Your task to perform on an android device: toggle sleep mode Image 0: 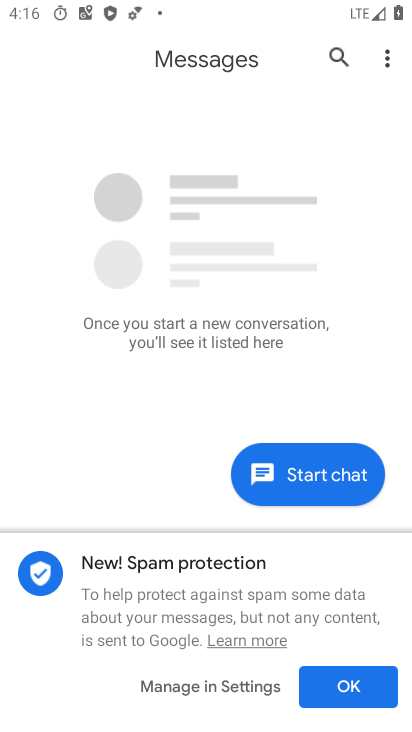
Step 0: press home button
Your task to perform on an android device: toggle sleep mode Image 1: 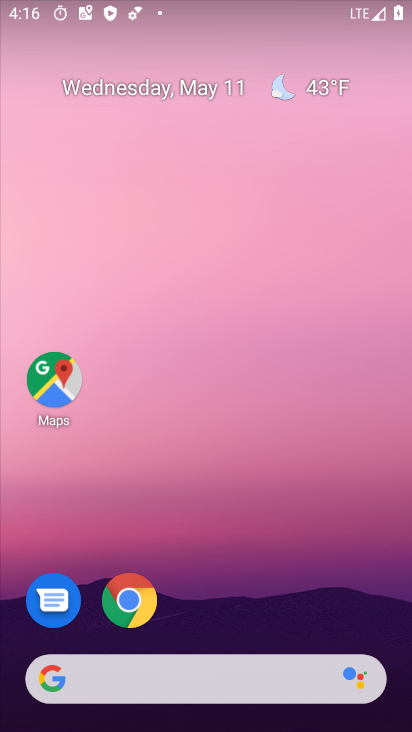
Step 1: drag from (281, 630) to (311, 38)
Your task to perform on an android device: toggle sleep mode Image 2: 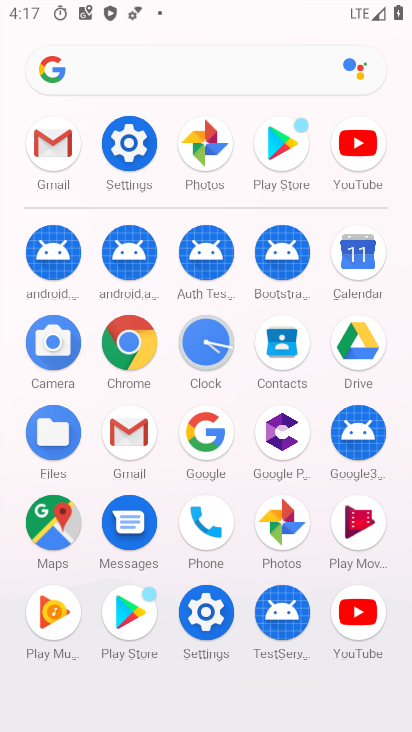
Step 2: click (129, 144)
Your task to perform on an android device: toggle sleep mode Image 3: 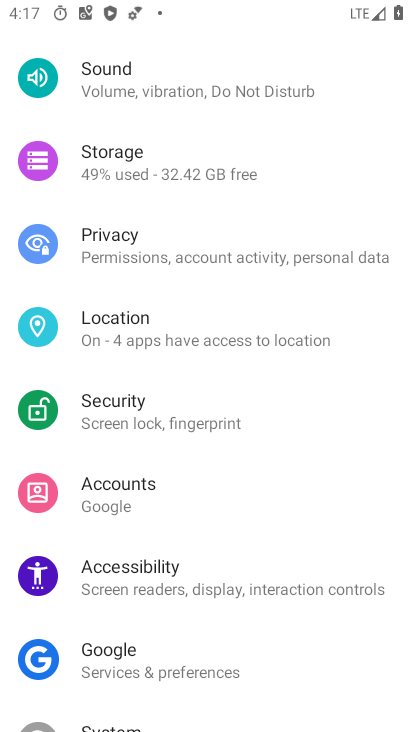
Step 3: drag from (229, 530) to (244, 252)
Your task to perform on an android device: toggle sleep mode Image 4: 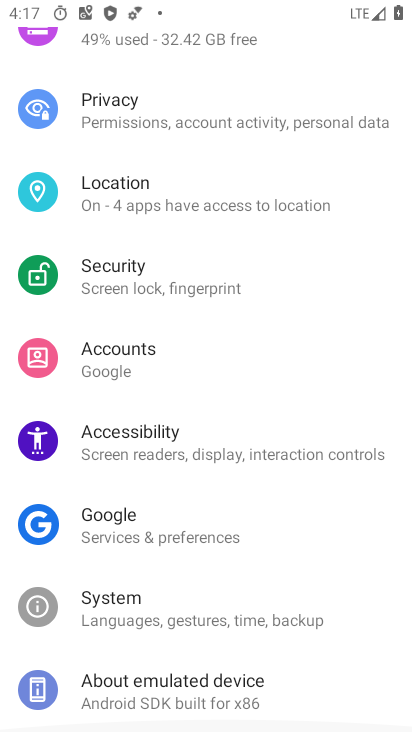
Step 4: drag from (244, 252) to (252, 705)
Your task to perform on an android device: toggle sleep mode Image 5: 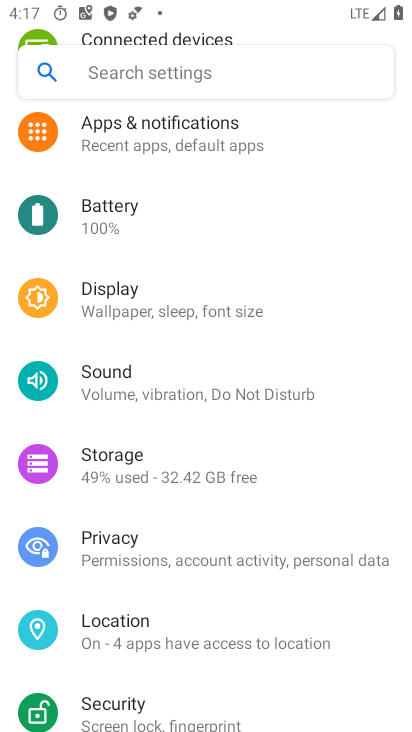
Step 5: click (121, 319)
Your task to perform on an android device: toggle sleep mode Image 6: 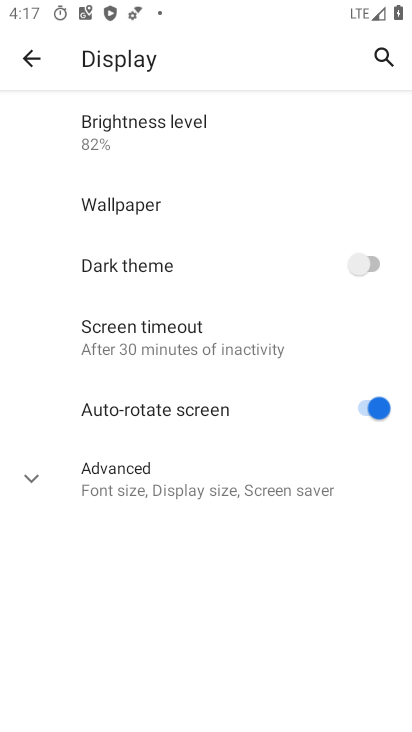
Step 6: click (35, 482)
Your task to perform on an android device: toggle sleep mode Image 7: 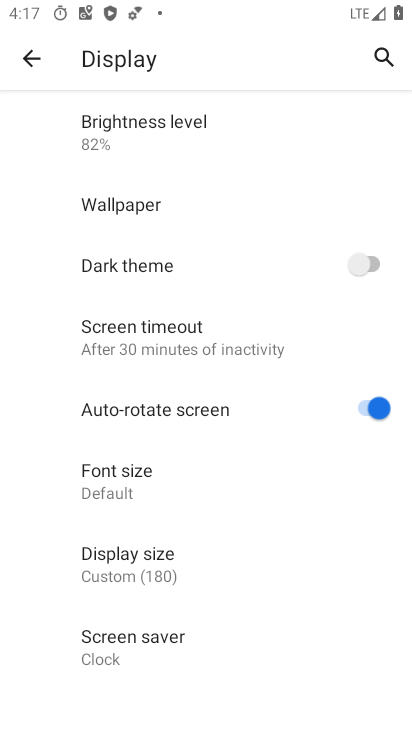
Step 7: task complete